Your task to perform on an android device: What's on my calendar tomorrow? Image 0: 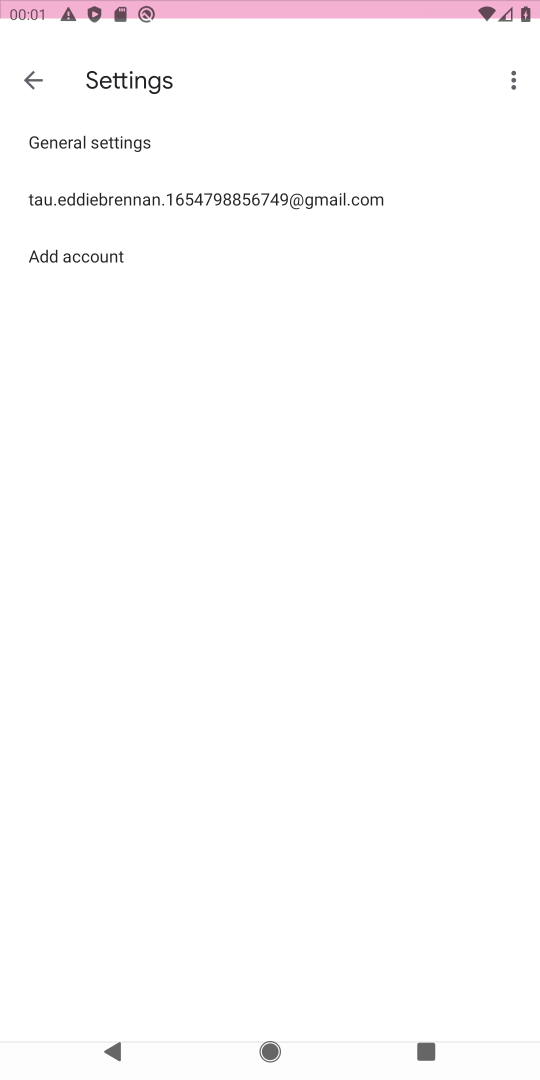
Step 0: press home button
Your task to perform on an android device: What's on my calendar tomorrow? Image 1: 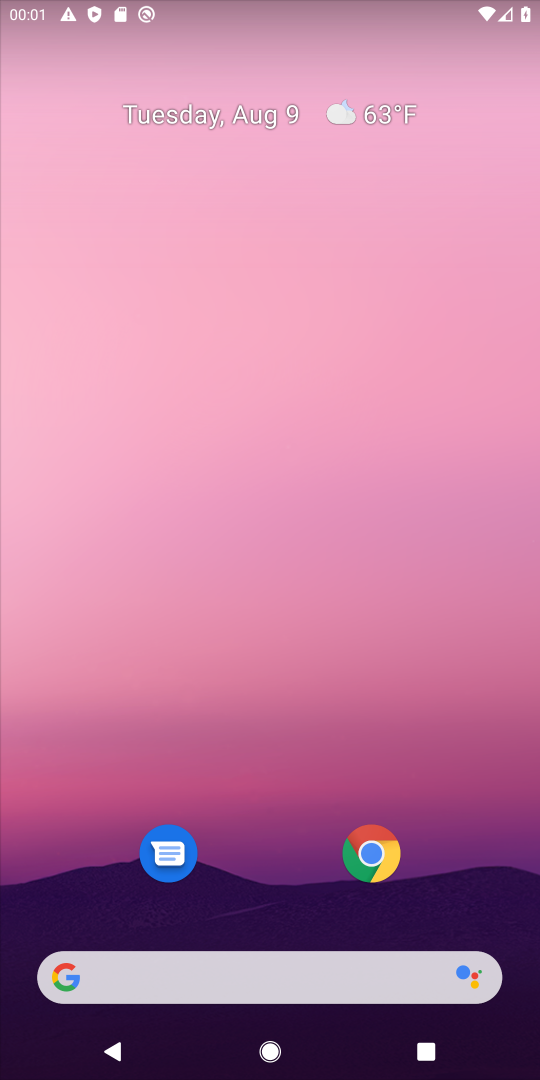
Step 1: drag from (261, 820) to (226, 212)
Your task to perform on an android device: What's on my calendar tomorrow? Image 2: 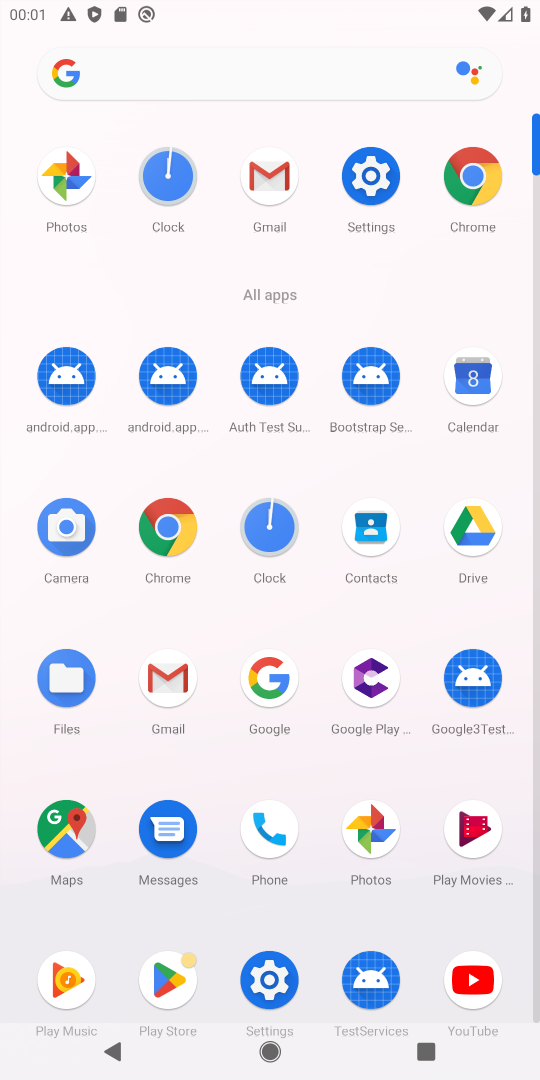
Step 2: click (478, 407)
Your task to perform on an android device: What's on my calendar tomorrow? Image 3: 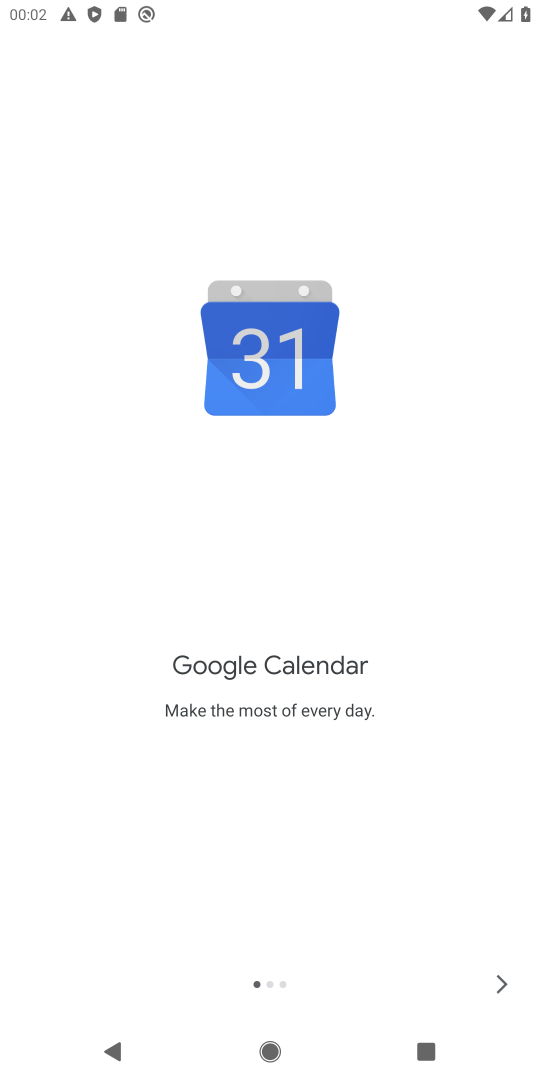
Step 3: click (502, 980)
Your task to perform on an android device: What's on my calendar tomorrow? Image 4: 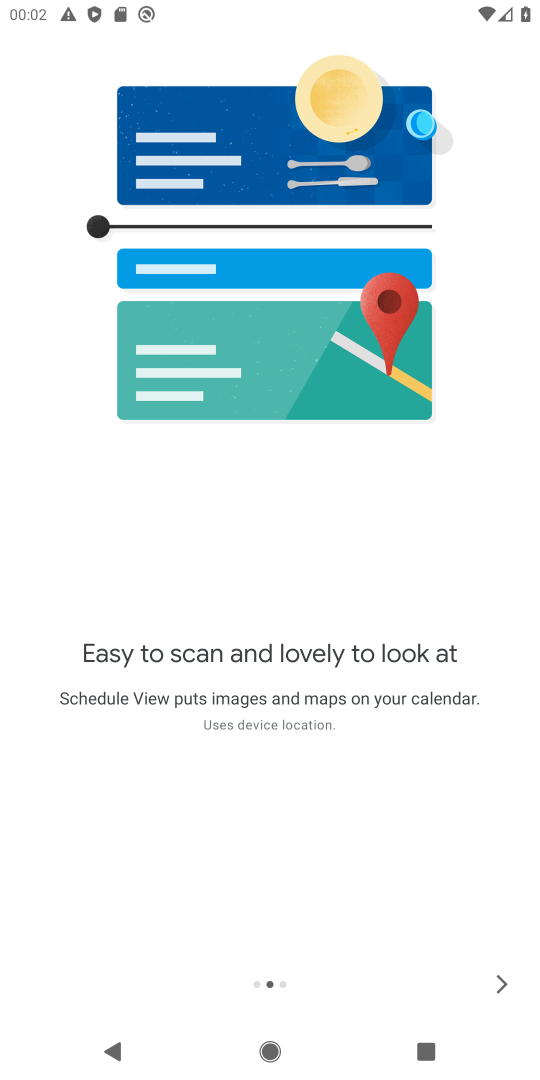
Step 4: click (502, 980)
Your task to perform on an android device: What's on my calendar tomorrow? Image 5: 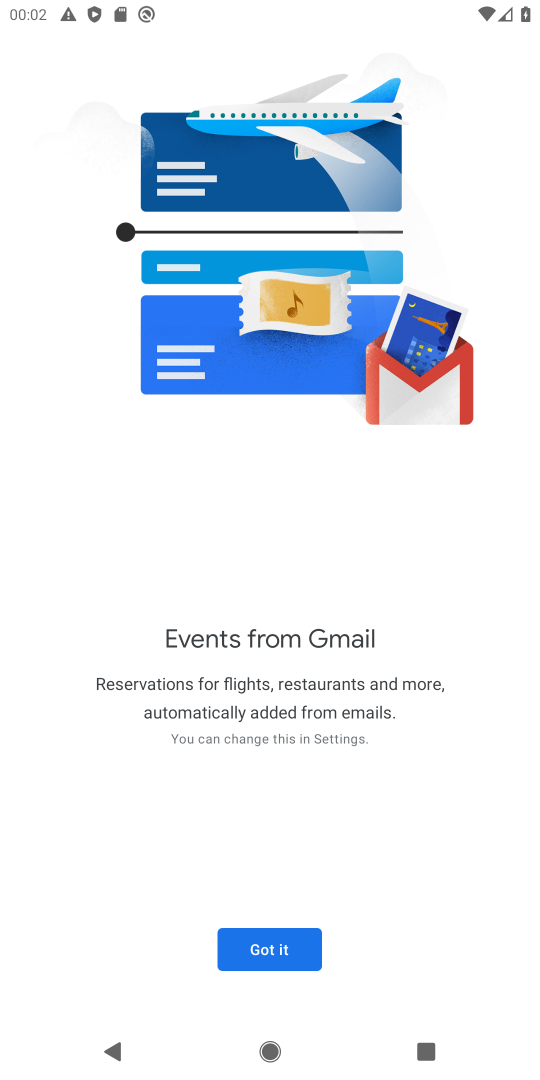
Step 5: click (302, 954)
Your task to perform on an android device: What's on my calendar tomorrow? Image 6: 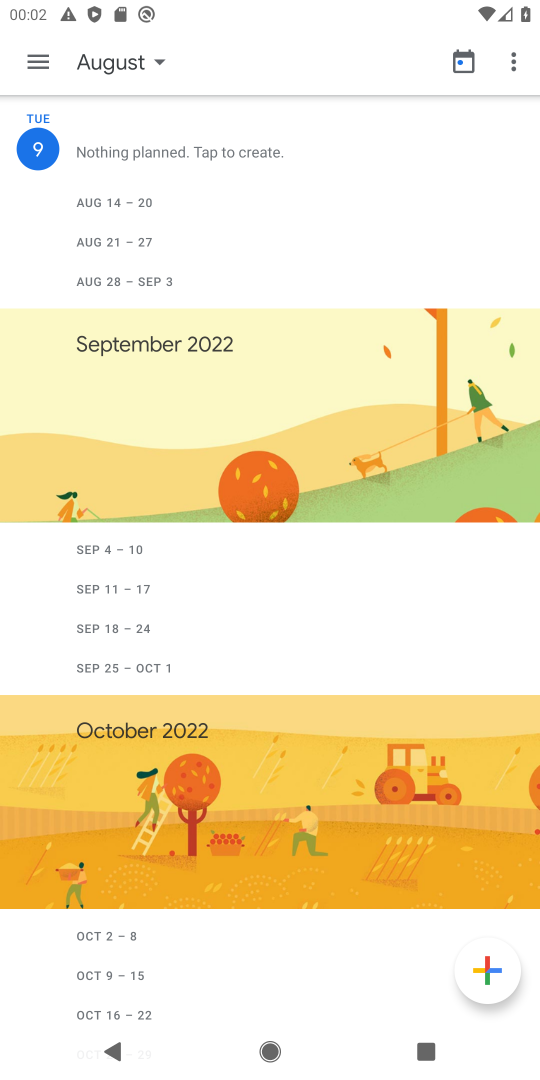
Step 6: click (130, 84)
Your task to perform on an android device: What's on my calendar tomorrow? Image 7: 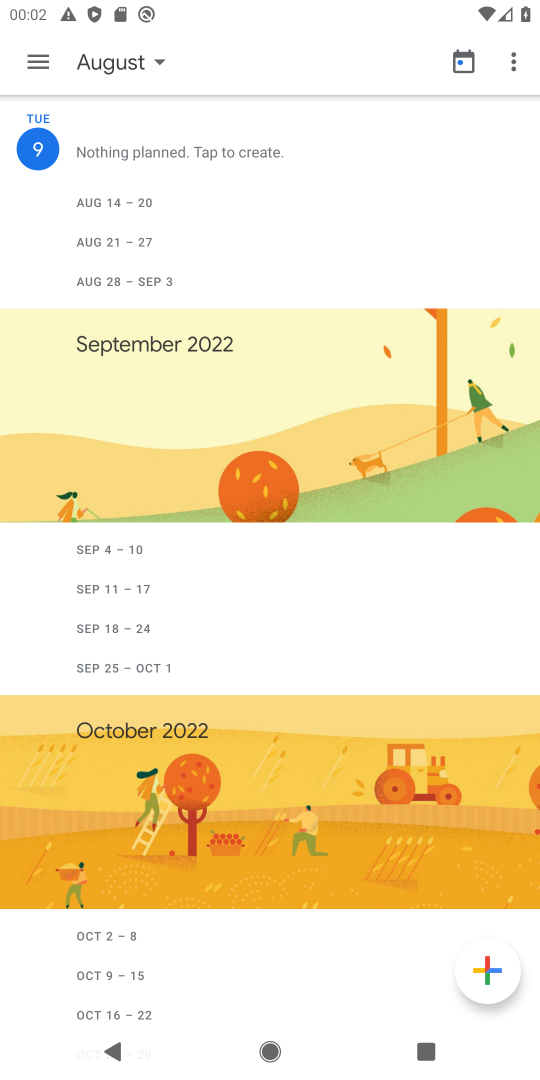
Step 7: click (155, 61)
Your task to perform on an android device: What's on my calendar tomorrow? Image 8: 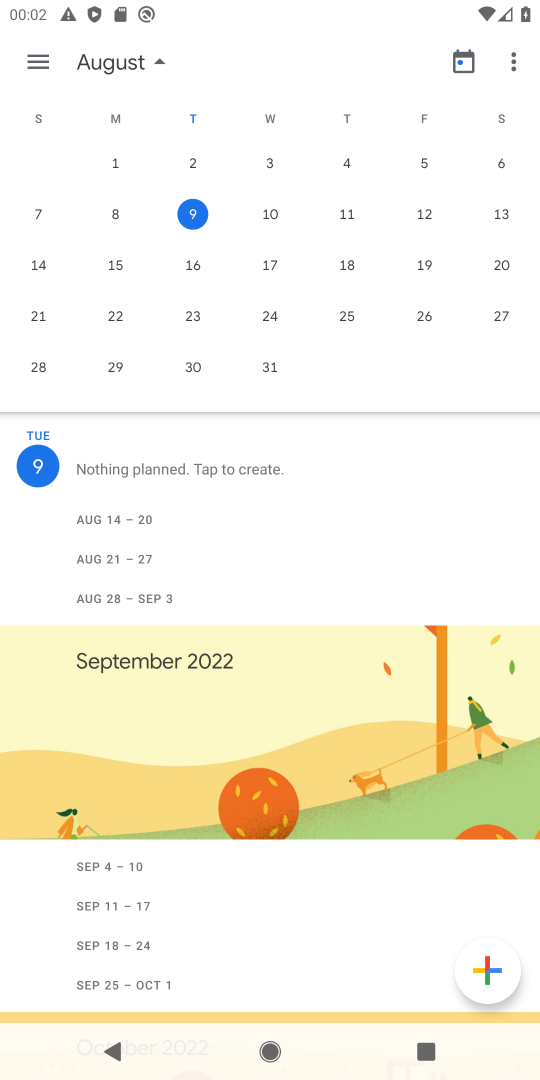
Step 8: click (265, 202)
Your task to perform on an android device: What's on my calendar tomorrow? Image 9: 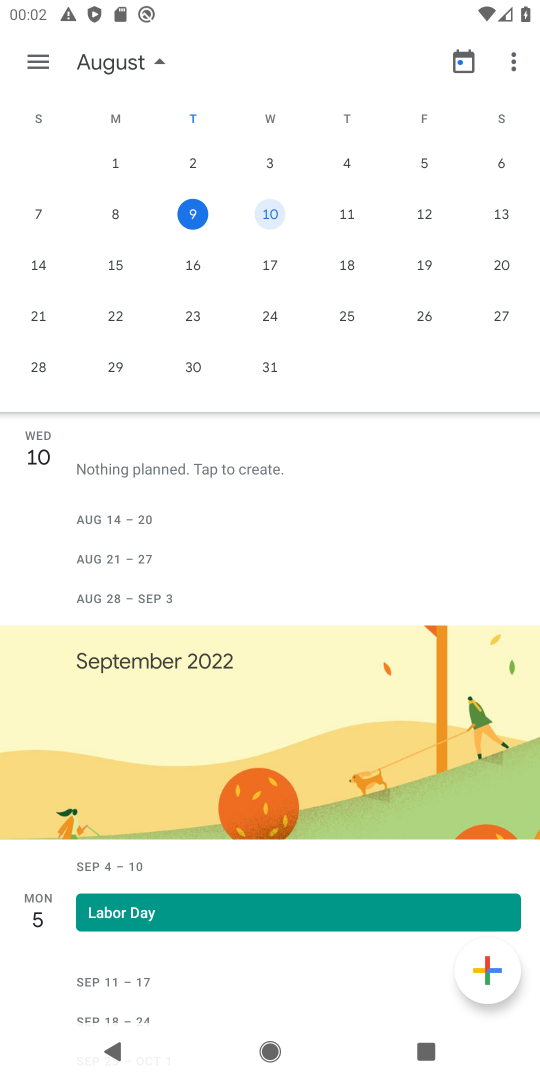
Step 9: task complete